Your task to perform on an android device: Open privacy settings Image 0: 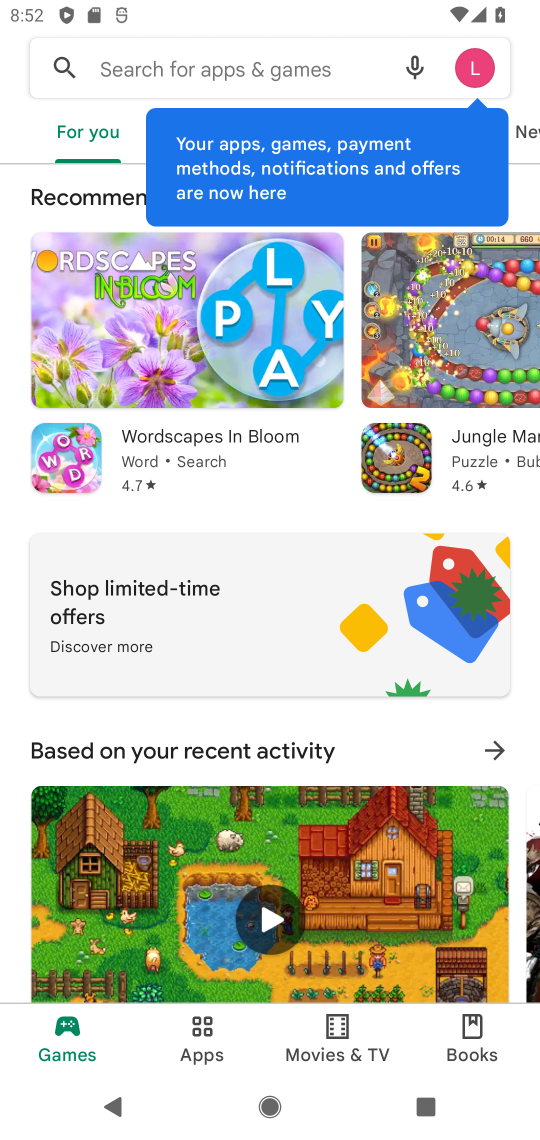
Step 0: drag from (310, 817) to (328, 482)
Your task to perform on an android device: Open privacy settings Image 1: 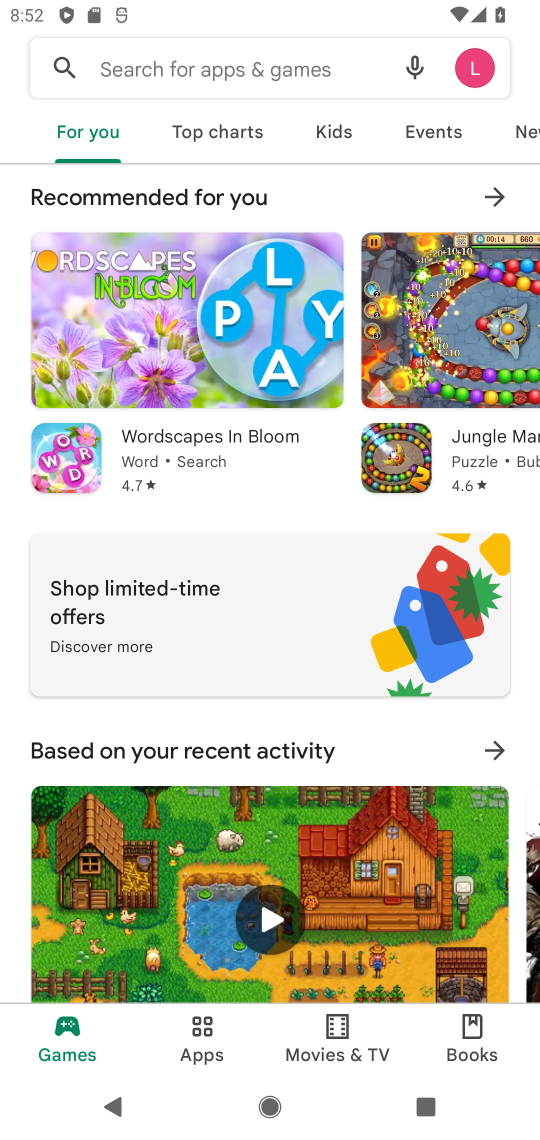
Step 1: drag from (288, 418) to (356, 914)
Your task to perform on an android device: Open privacy settings Image 2: 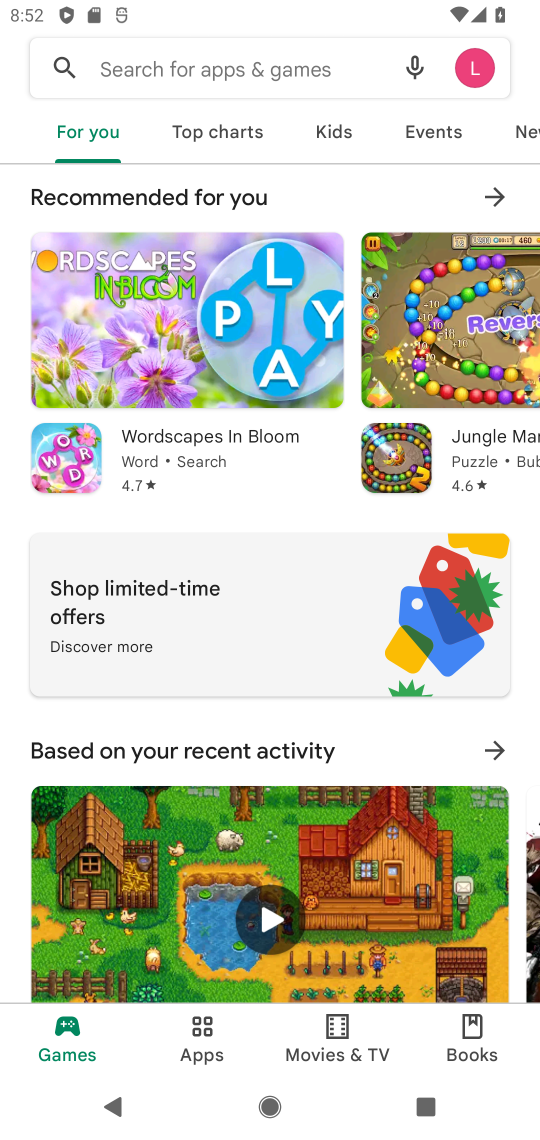
Step 2: drag from (331, 749) to (397, 248)
Your task to perform on an android device: Open privacy settings Image 3: 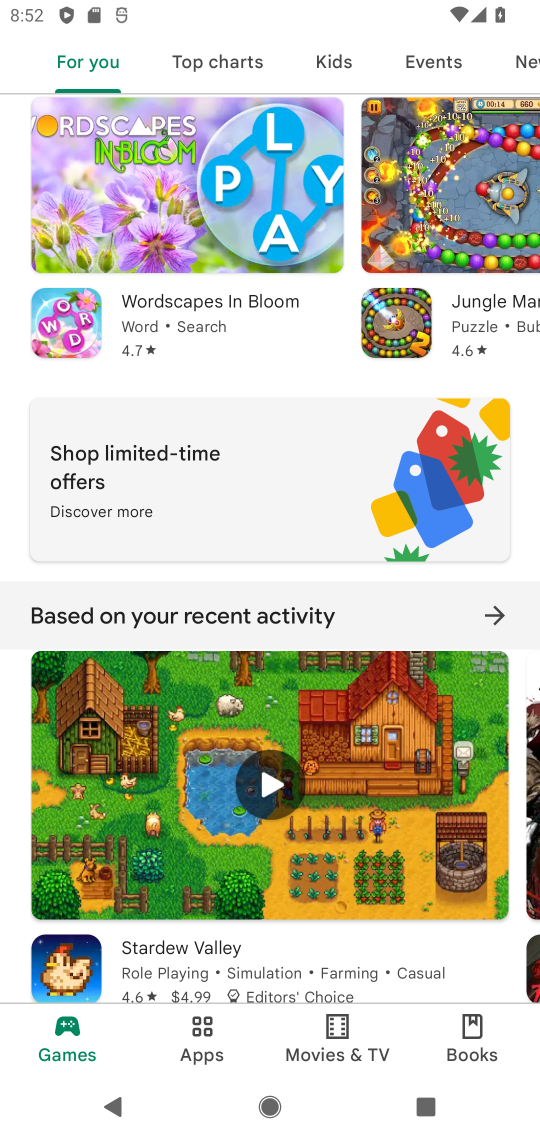
Step 3: drag from (332, 456) to (454, 1085)
Your task to perform on an android device: Open privacy settings Image 4: 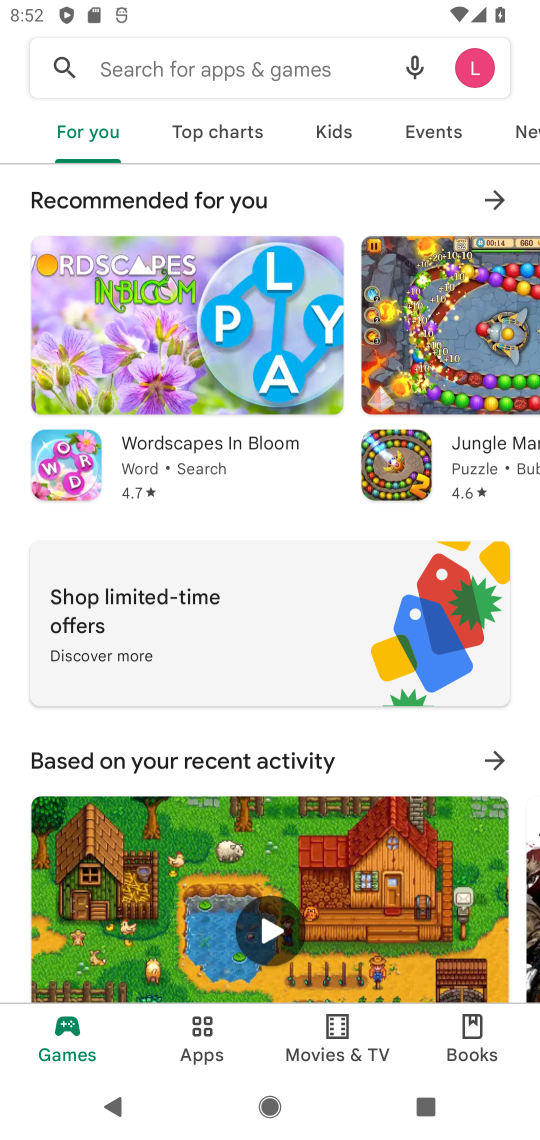
Step 4: press home button
Your task to perform on an android device: Open privacy settings Image 5: 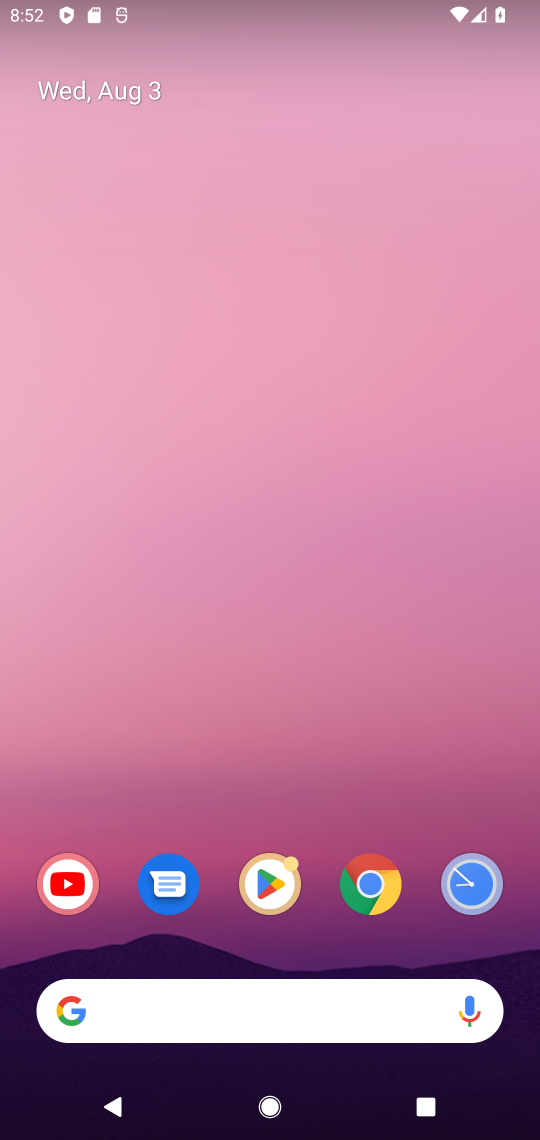
Step 5: drag from (267, 944) to (357, 357)
Your task to perform on an android device: Open privacy settings Image 6: 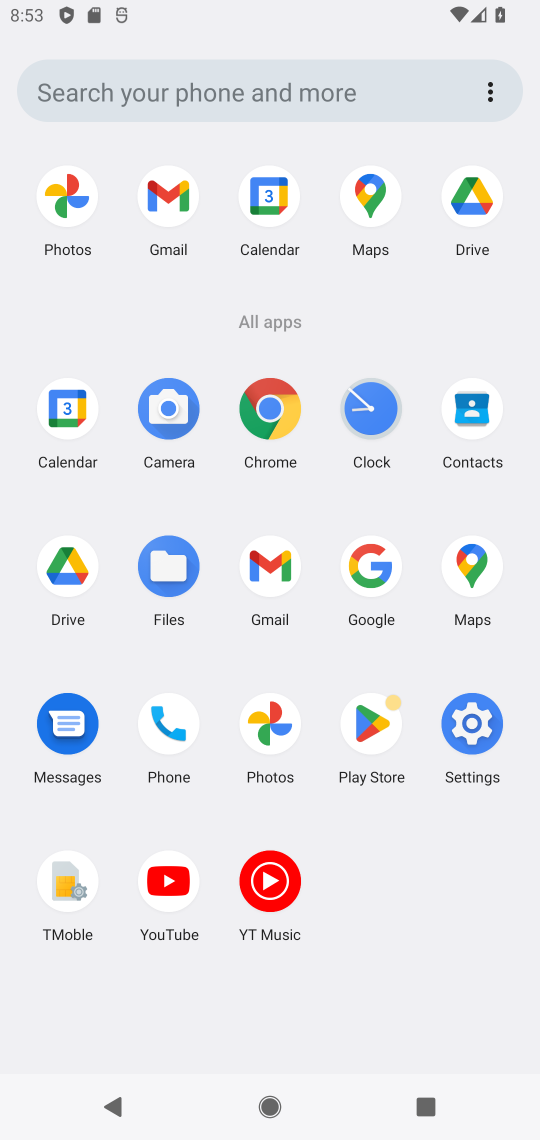
Step 6: click (466, 735)
Your task to perform on an android device: Open privacy settings Image 7: 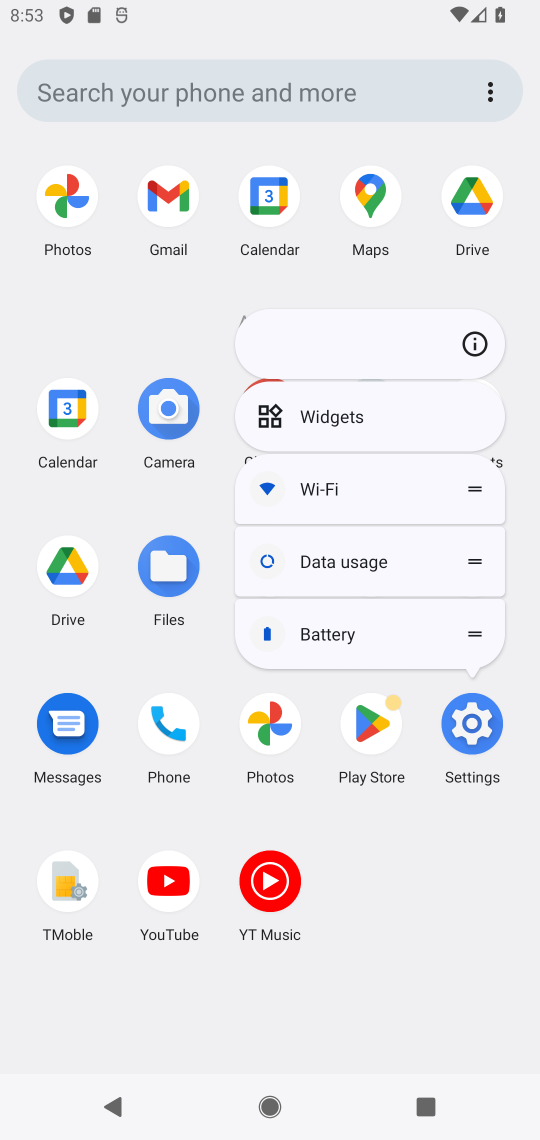
Step 7: click (478, 341)
Your task to perform on an android device: Open privacy settings Image 8: 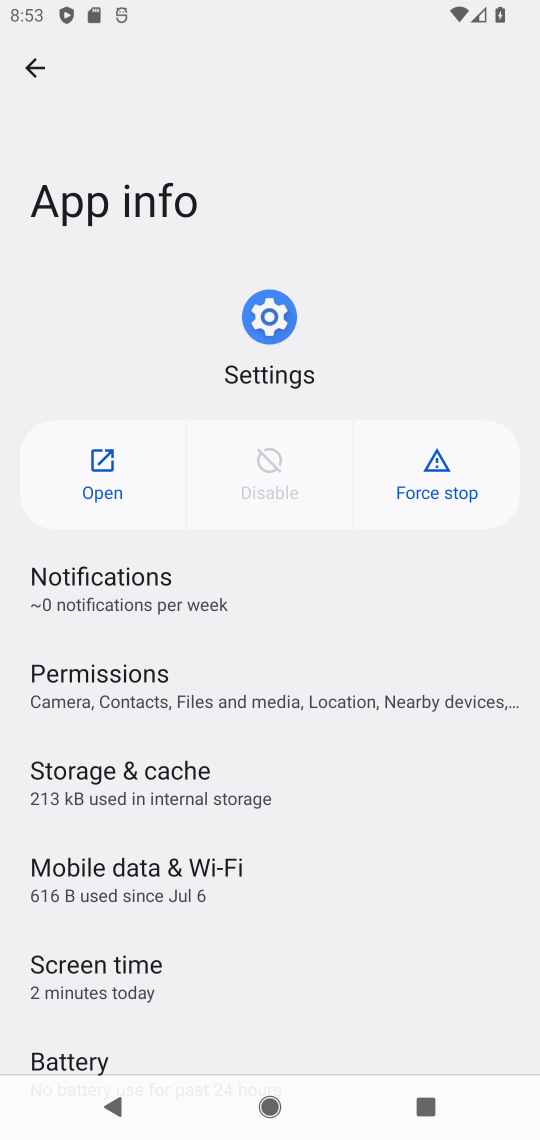
Step 8: click (93, 478)
Your task to perform on an android device: Open privacy settings Image 9: 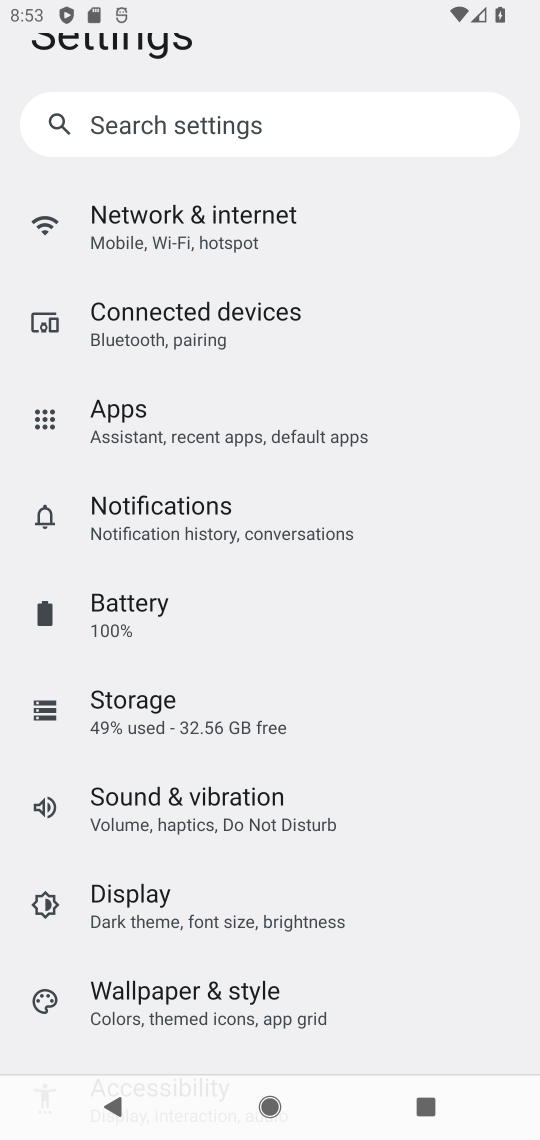
Step 9: drag from (130, 831) to (225, 304)
Your task to perform on an android device: Open privacy settings Image 10: 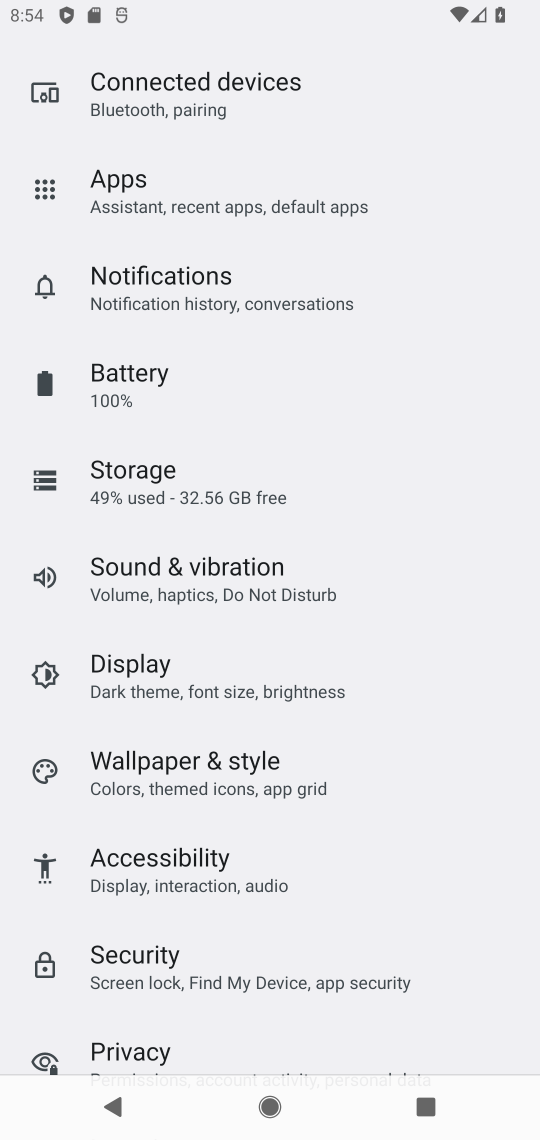
Step 10: click (137, 1051)
Your task to perform on an android device: Open privacy settings Image 11: 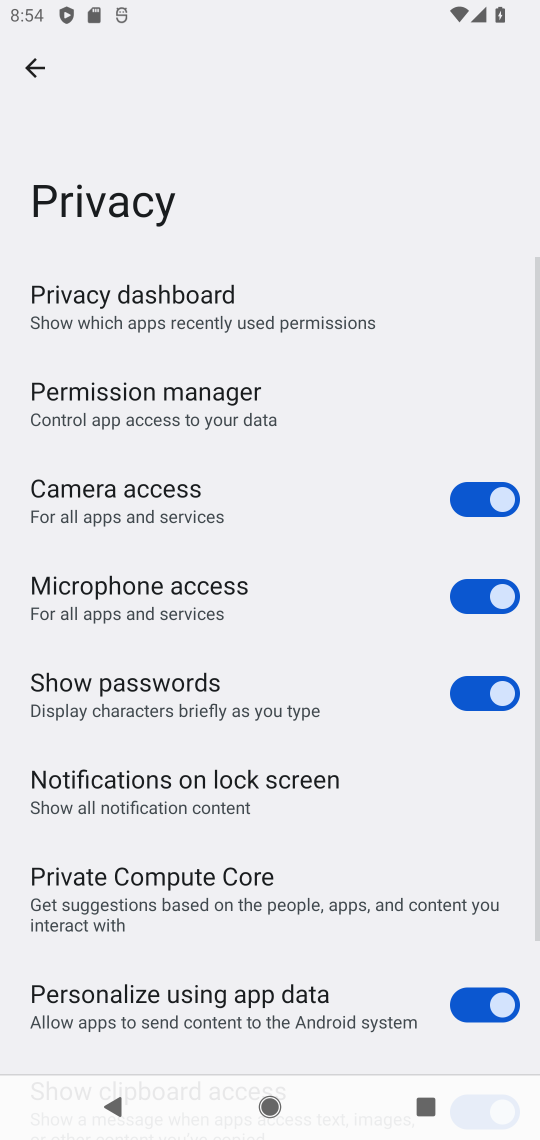
Step 11: task complete